Your task to perform on an android device: open app "Gmail" Image 0: 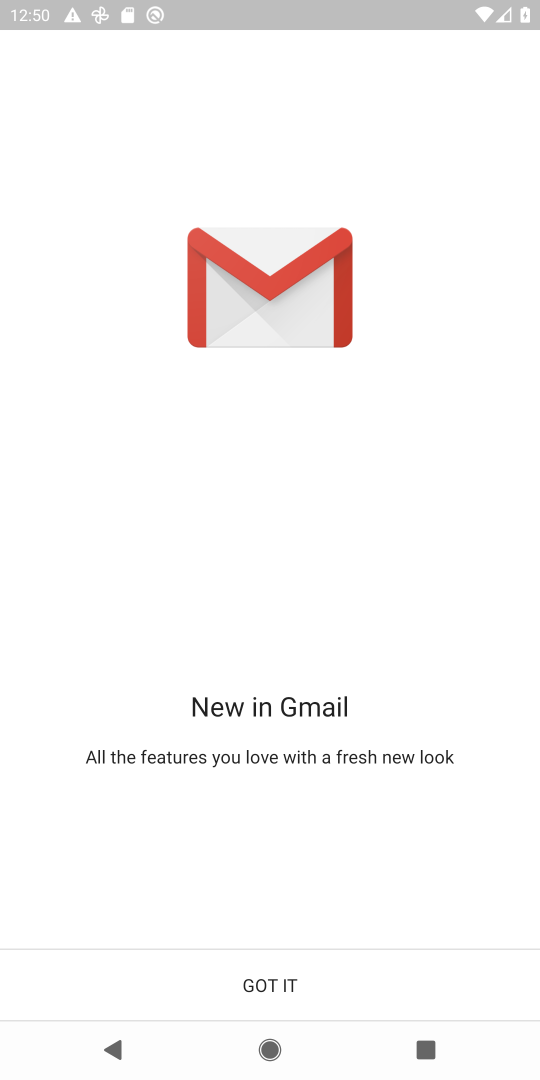
Step 0: press home button
Your task to perform on an android device: open app "Gmail" Image 1: 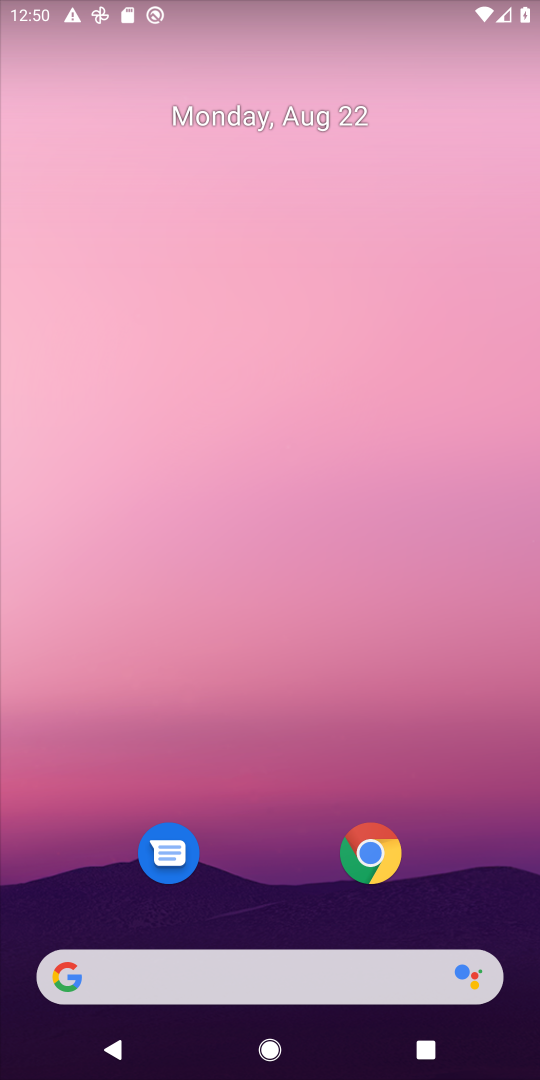
Step 1: drag from (253, 953) to (239, 359)
Your task to perform on an android device: open app "Gmail" Image 2: 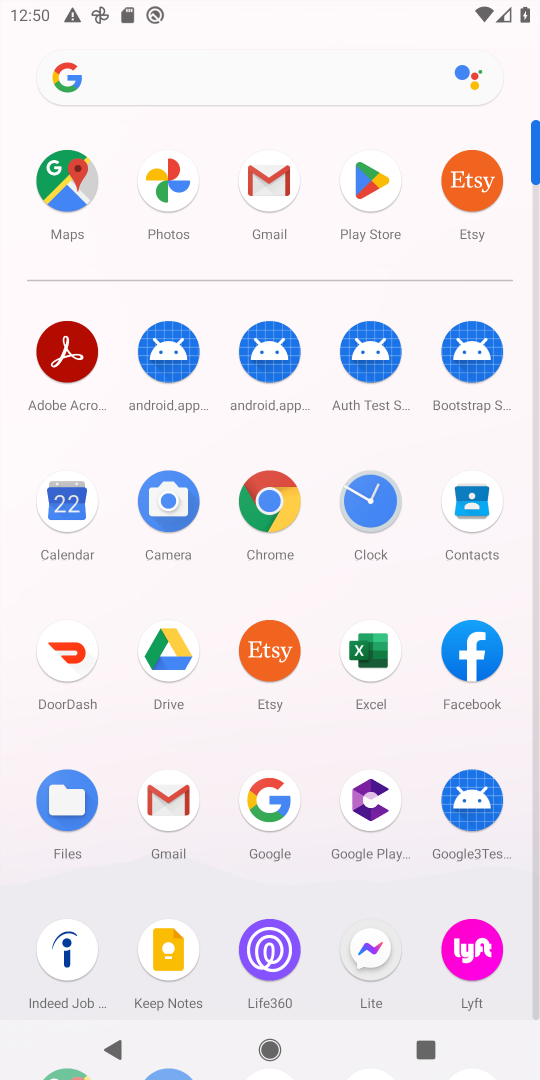
Step 2: click (357, 165)
Your task to perform on an android device: open app "Gmail" Image 3: 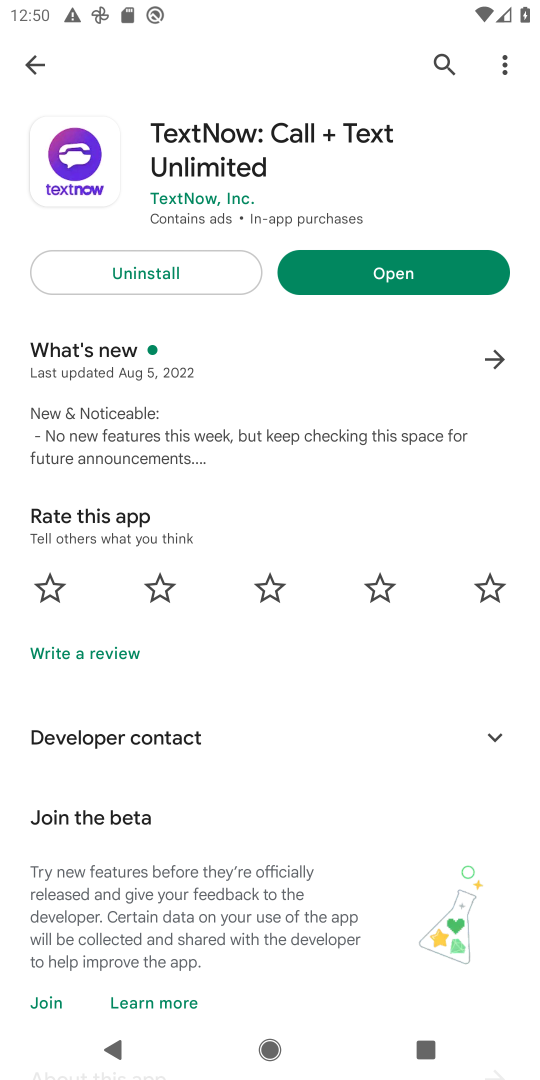
Step 3: click (39, 29)
Your task to perform on an android device: open app "Gmail" Image 4: 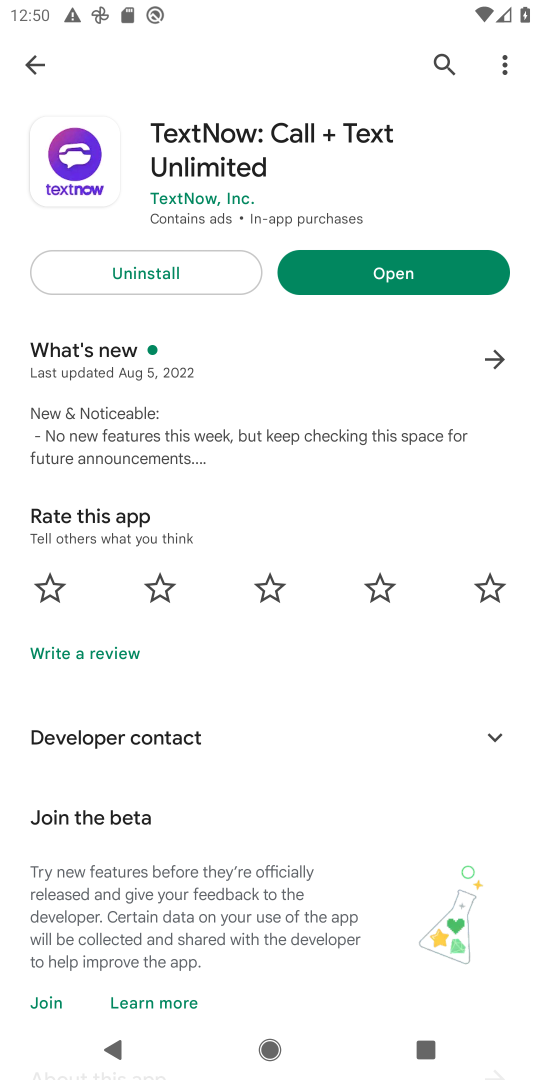
Step 4: click (31, 43)
Your task to perform on an android device: open app "Gmail" Image 5: 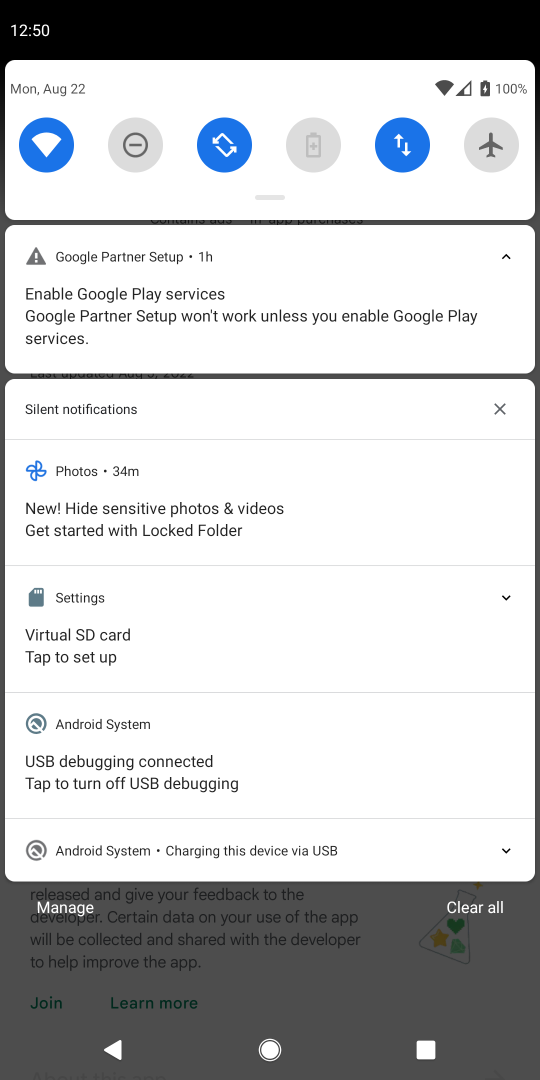
Step 5: click (256, 996)
Your task to perform on an android device: open app "Gmail" Image 6: 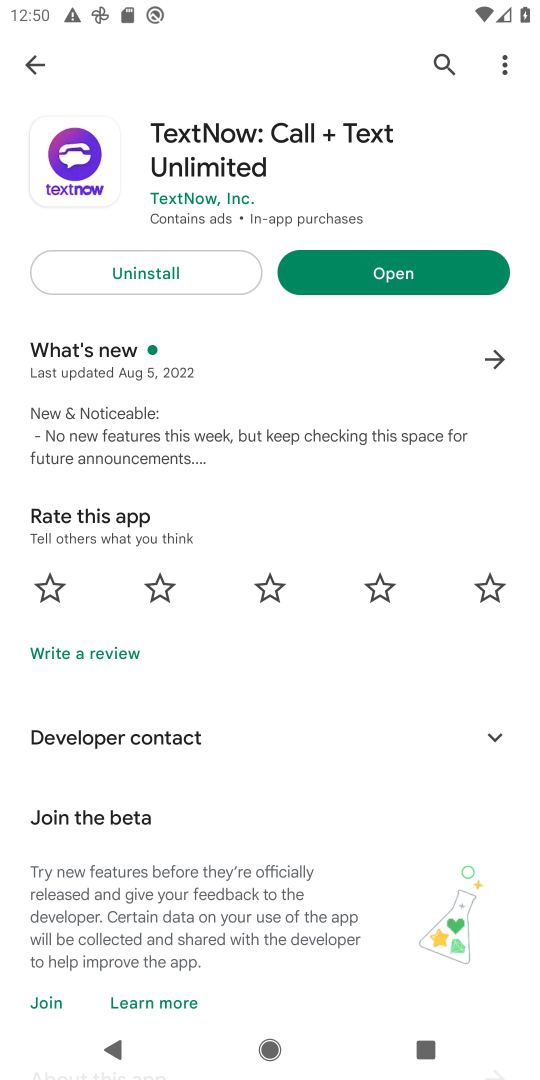
Step 6: click (23, 78)
Your task to perform on an android device: open app "Gmail" Image 7: 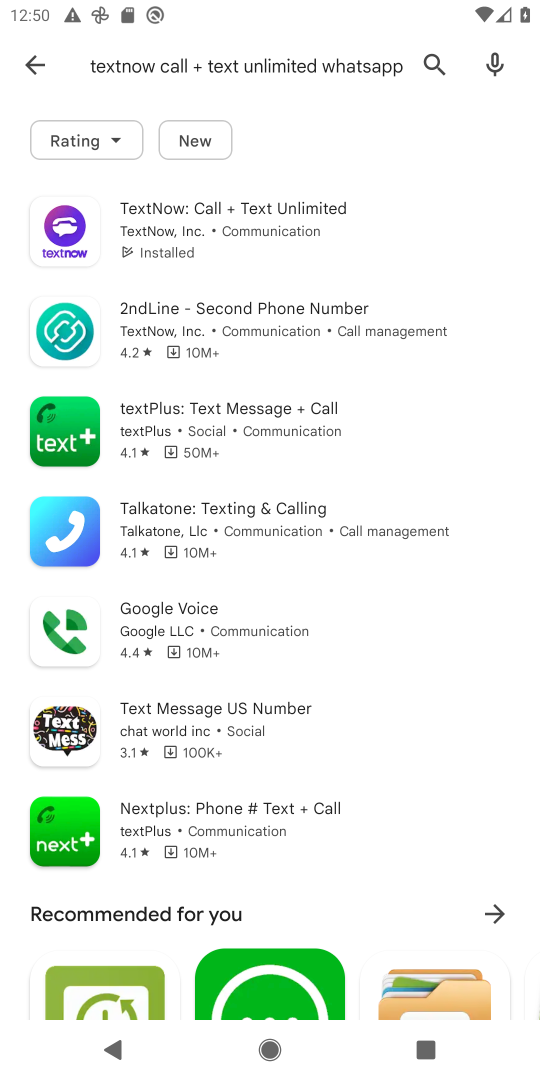
Step 7: click (46, 49)
Your task to perform on an android device: open app "Gmail" Image 8: 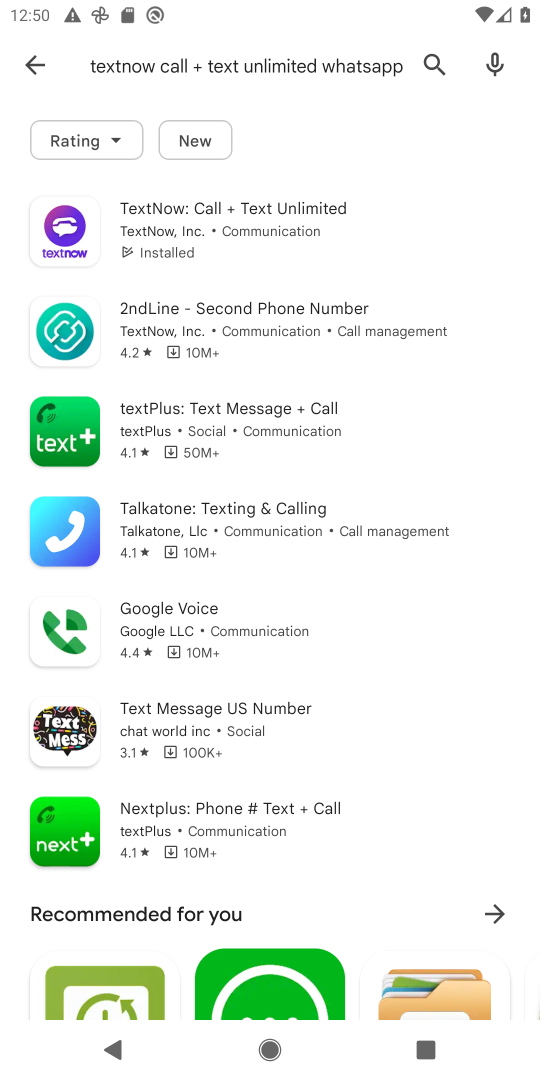
Step 8: click (46, 49)
Your task to perform on an android device: open app "Gmail" Image 9: 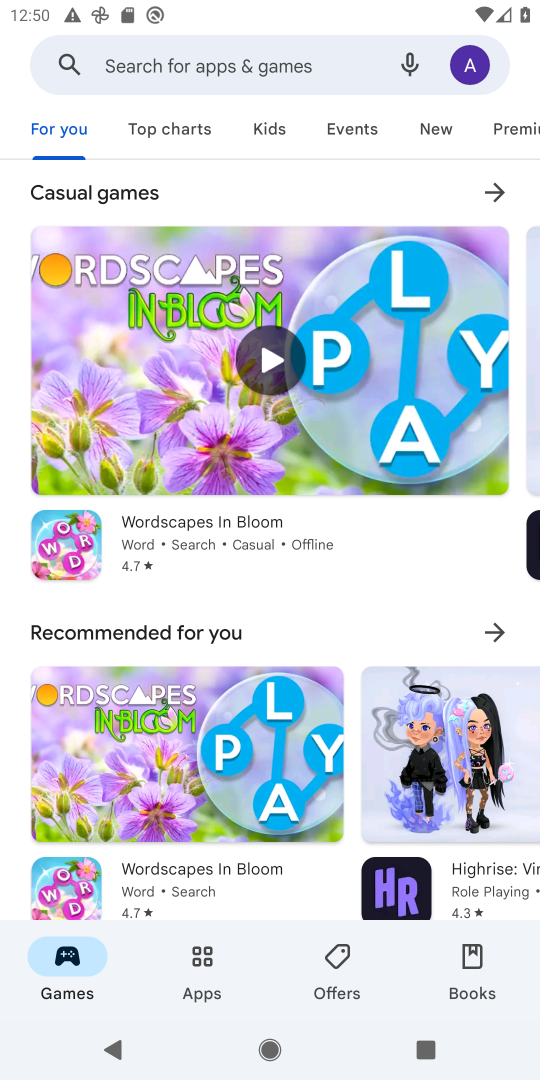
Step 9: click (232, 53)
Your task to perform on an android device: open app "Gmail" Image 10: 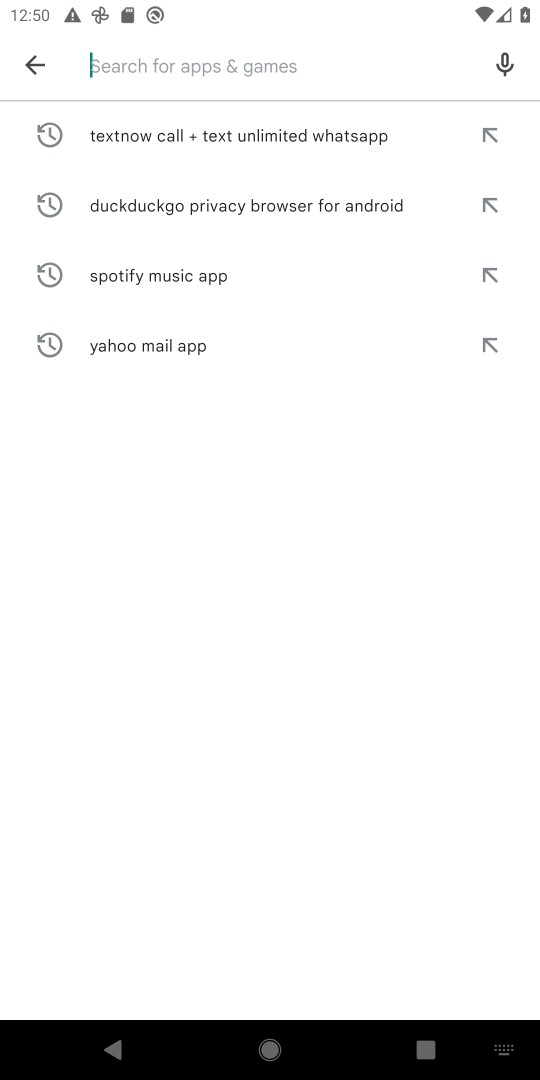
Step 10: type "Gmail "
Your task to perform on an android device: open app "Gmail" Image 11: 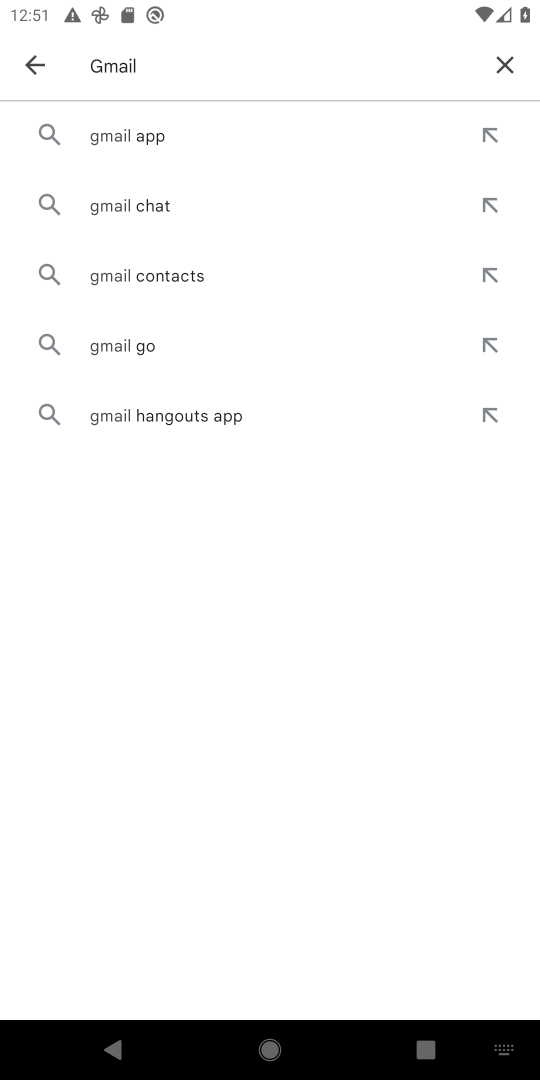
Step 11: click (152, 150)
Your task to perform on an android device: open app "Gmail" Image 12: 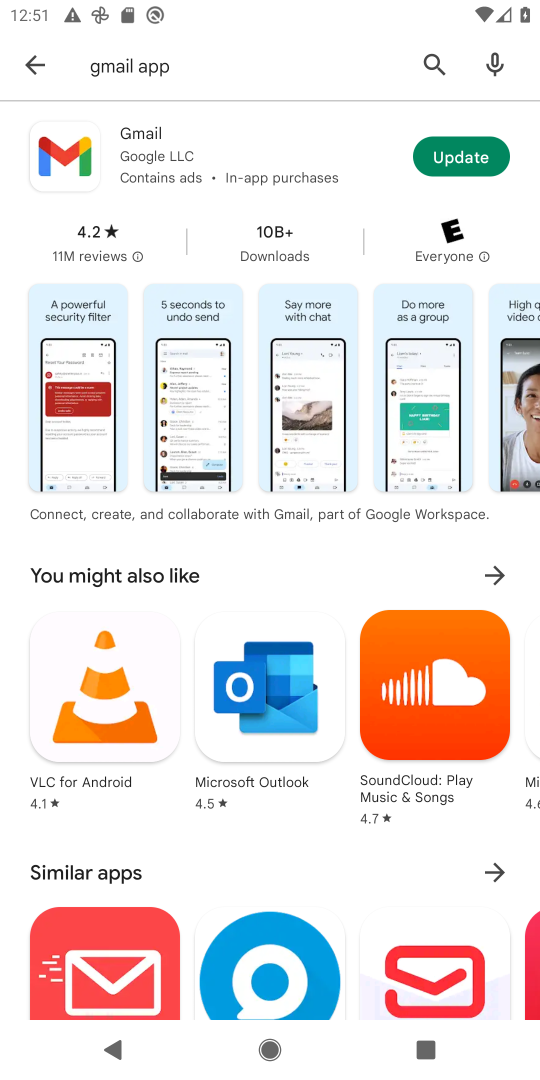
Step 12: click (447, 135)
Your task to perform on an android device: open app "Gmail" Image 13: 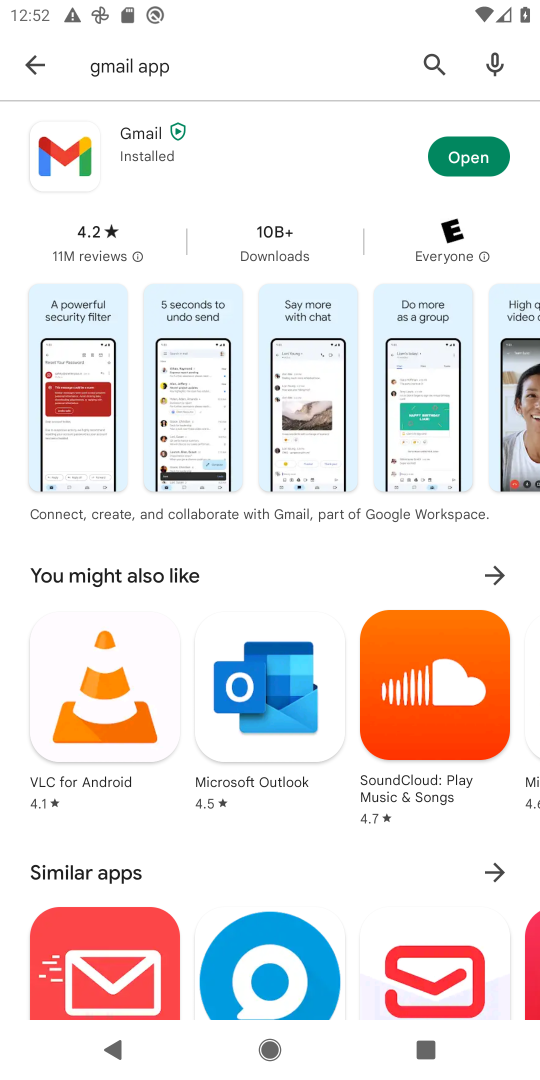
Step 13: click (447, 135)
Your task to perform on an android device: open app "Gmail" Image 14: 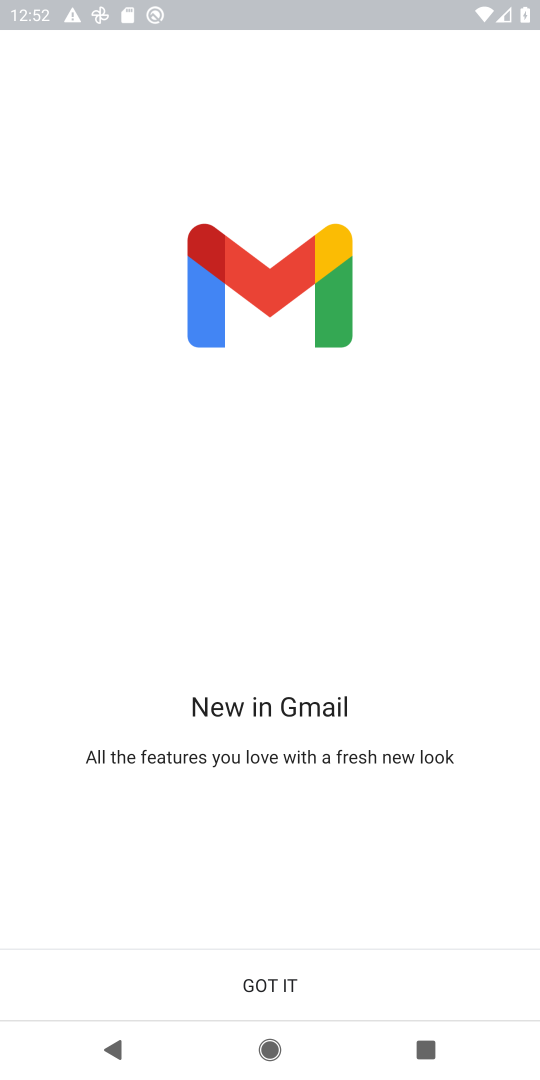
Step 14: task complete